Your task to perform on an android device: Open battery settings Image 0: 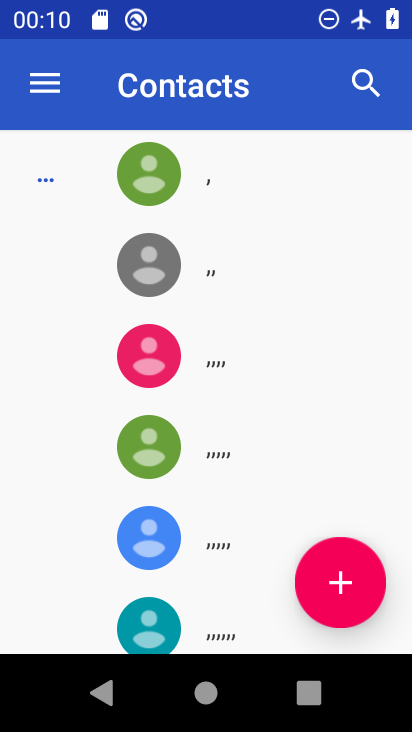
Step 0: press home button
Your task to perform on an android device: Open battery settings Image 1: 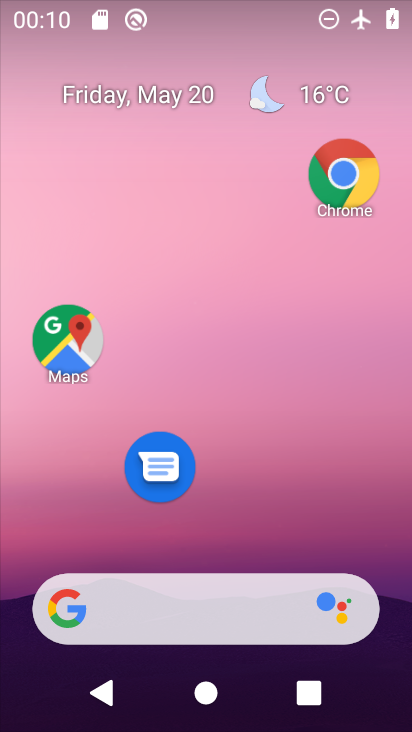
Step 1: drag from (282, 599) to (233, 240)
Your task to perform on an android device: Open battery settings Image 2: 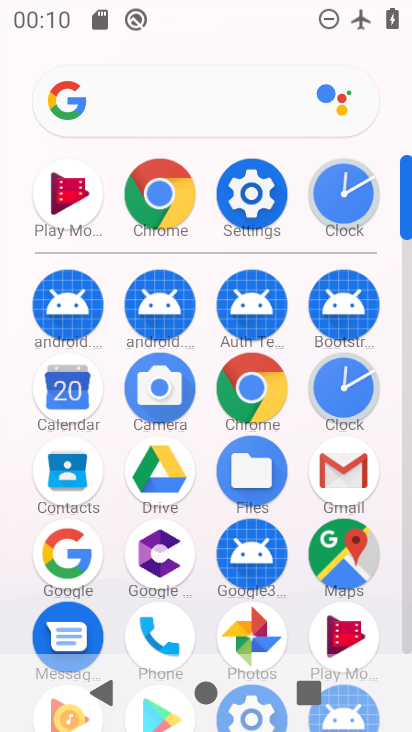
Step 2: click (251, 199)
Your task to perform on an android device: Open battery settings Image 3: 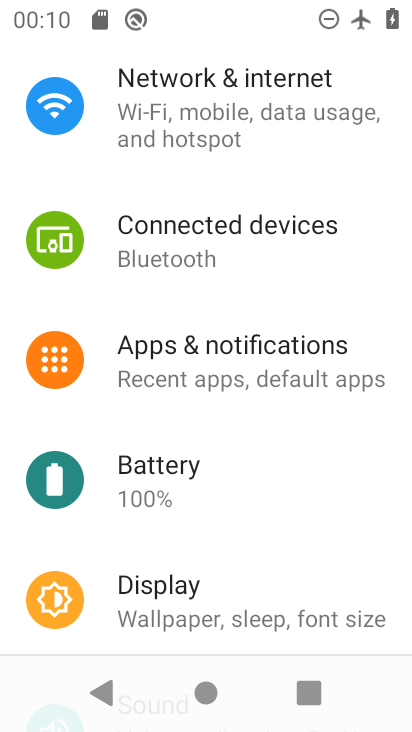
Step 3: click (192, 453)
Your task to perform on an android device: Open battery settings Image 4: 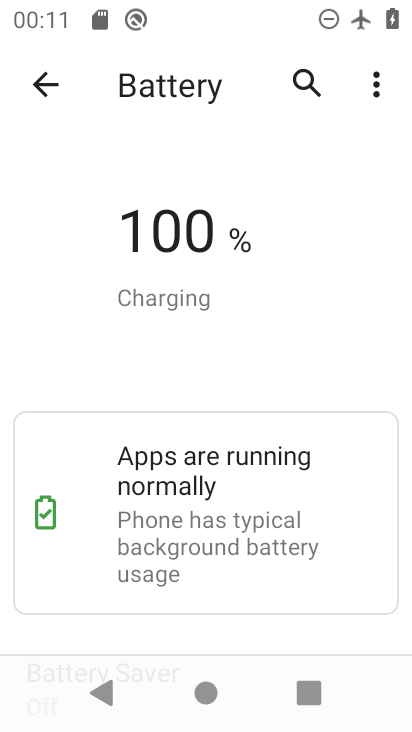
Step 4: task complete